Your task to perform on an android device: Open Reddit.com Image 0: 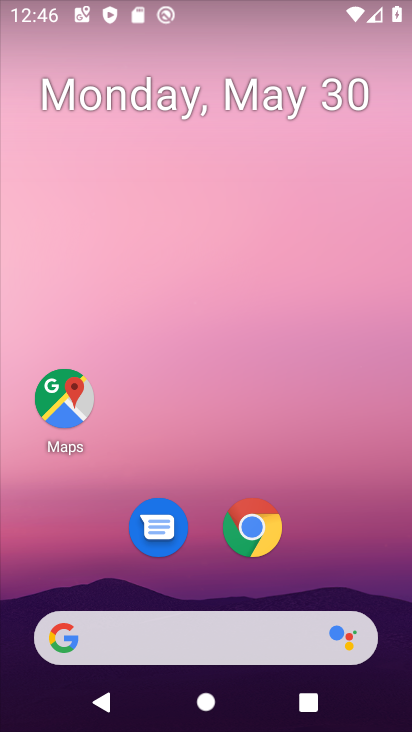
Step 0: drag from (218, 553) to (205, 263)
Your task to perform on an android device: Open Reddit.com Image 1: 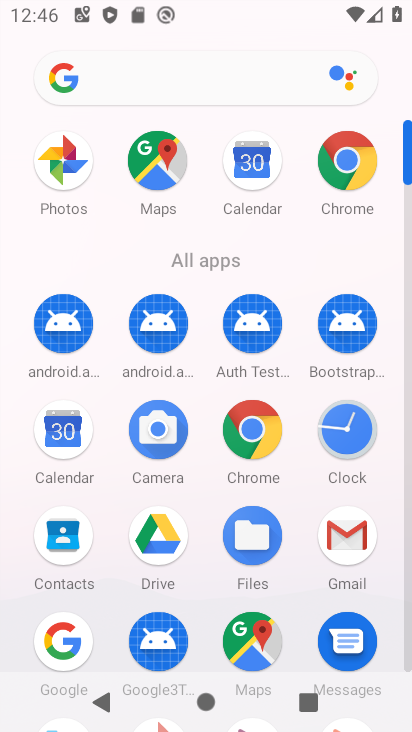
Step 1: click (138, 68)
Your task to perform on an android device: Open Reddit.com Image 2: 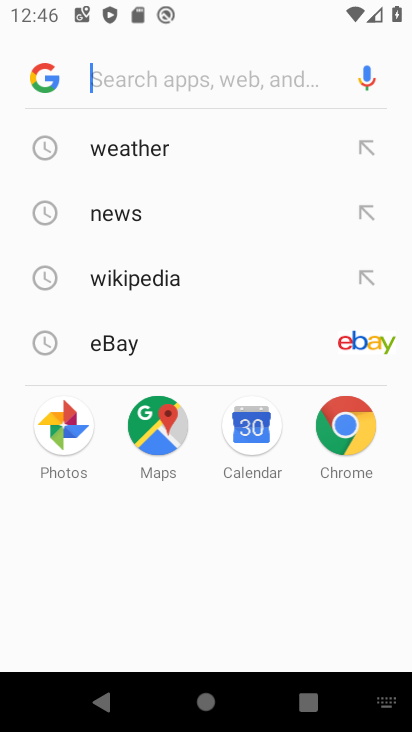
Step 2: type "Reddit.com"
Your task to perform on an android device: Open Reddit.com Image 3: 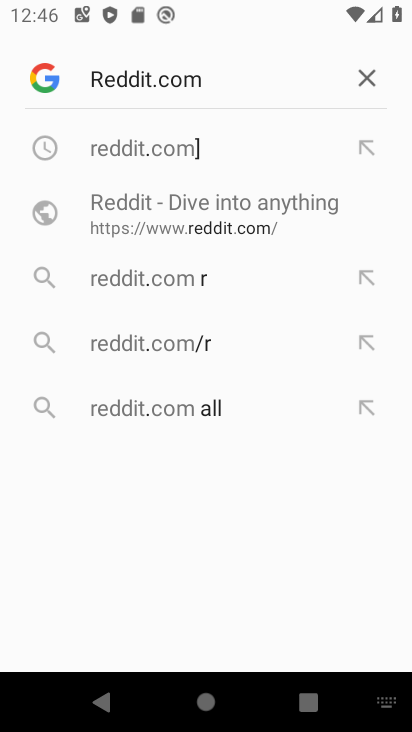
Step 3: click (150, 155)
Your task to perform on an android device: Open Reddit.com Image 4: 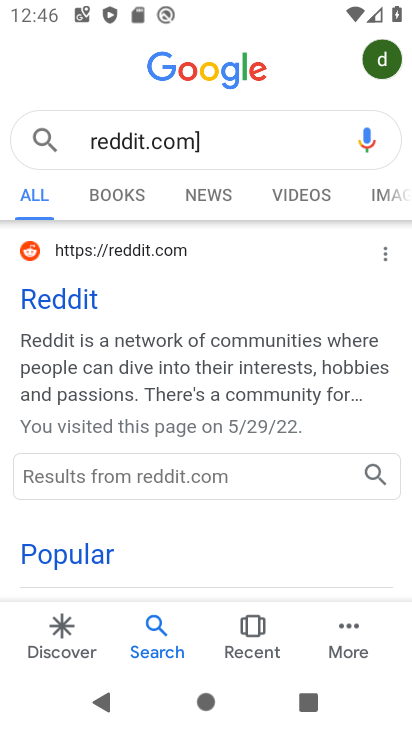
Step 4: click (46, 307)
Your task to perform on an android device: Open Reddit.com Image 5: 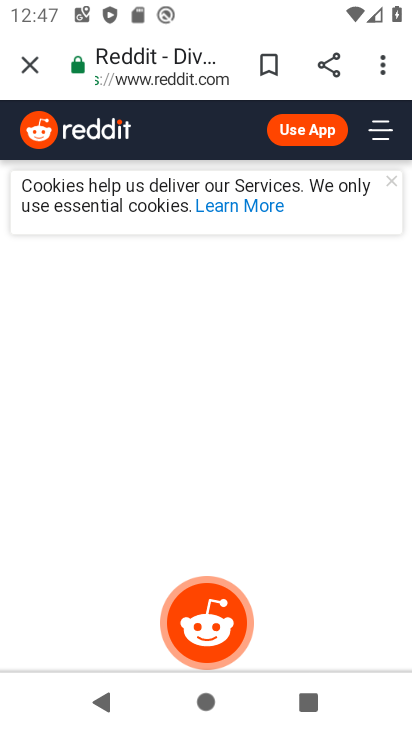
Step 5: task complete